Your task to perform on an android device: set default search engine in the chrome app Image 0: 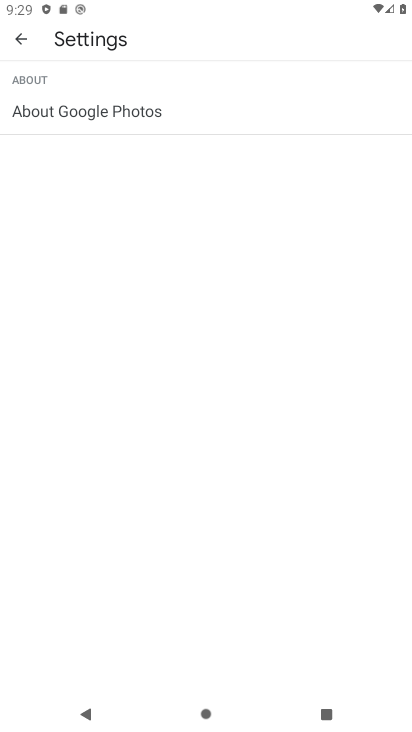
Step 0: drag from (307, 666) to (228, 80)
Your task to perform on an android device: set default search engine in the chrome app Image 1: 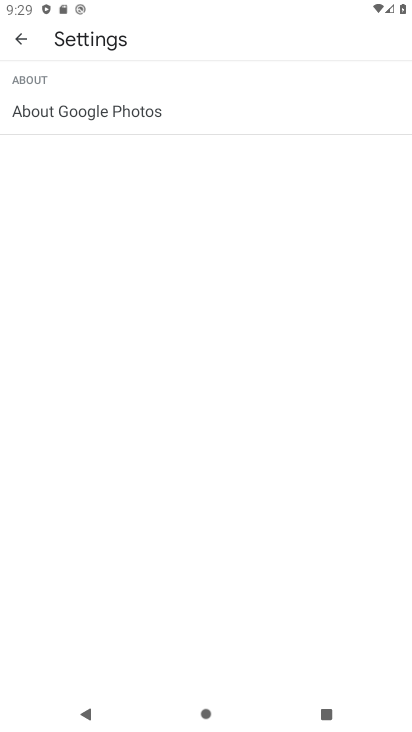
Step 1: click (26, 46)
Your task to perform on an android device: set default search engine in the chrome app Image 2: 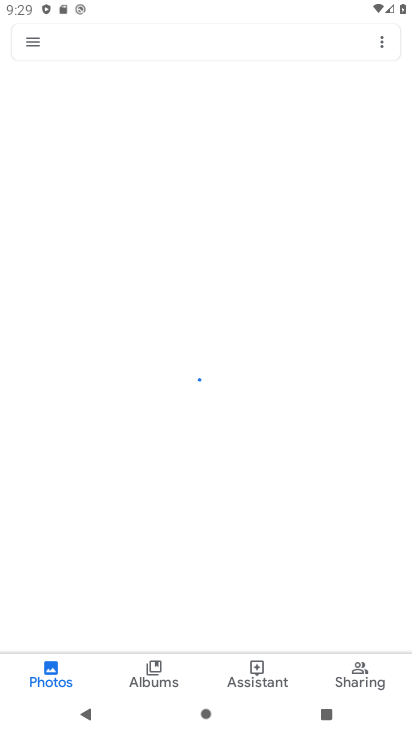
Step 2: press back button
Your task to perform on an android device: set default search engine in the chrome app Image 3: 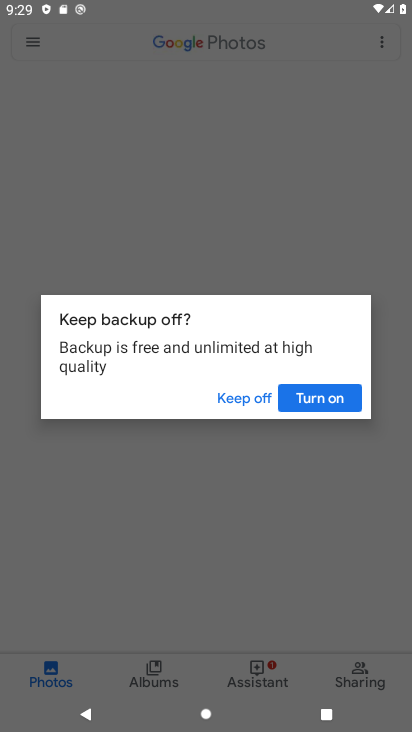
Step 3: click (249, 414)
Your task to perform on an android device: set default search engine in the chrome app Image 4: 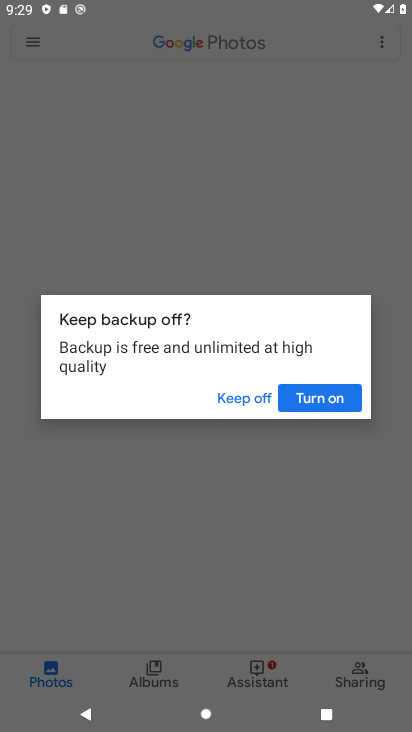
Step 4: click (174, 171)
Your task to perform on an android device: set default search engine in the chrome app Image 5: 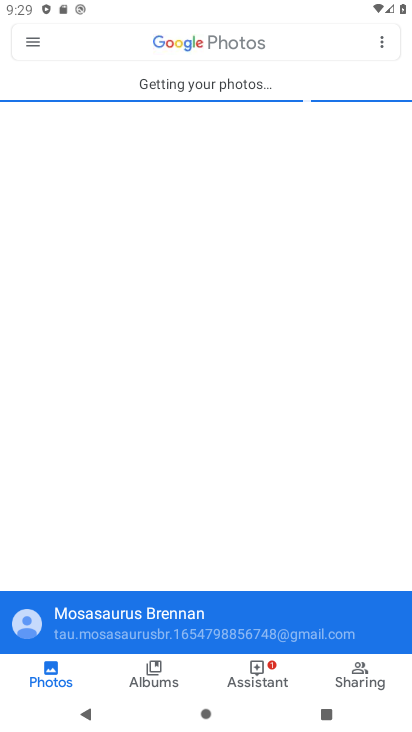
Step 5: press home button
Your task to perform on an android device: set default search engine in the chrome app Image 6: 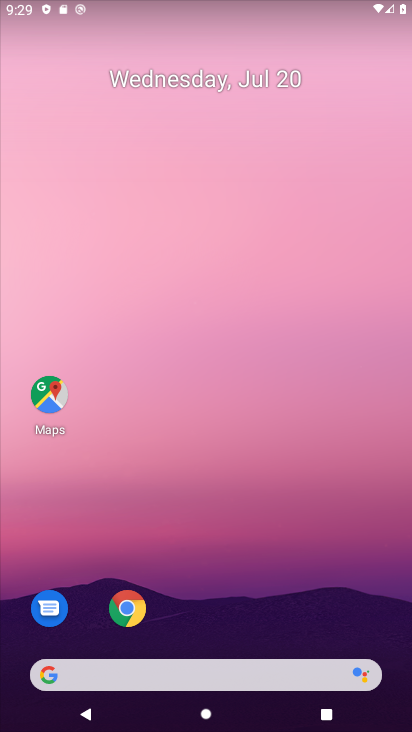
Step 6: drag from (205, 519) to (188, 76)
Your task to perform on an android device: set default search engine in the chrome app Image 7: 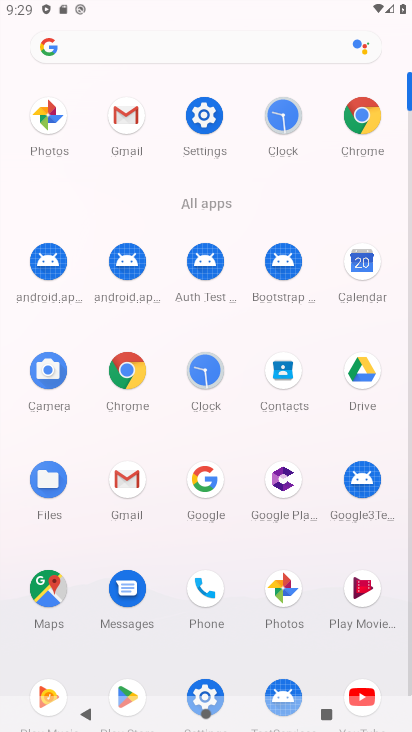
Step 7: click (358, 114)
Your task to perform on an android device: set default search engine in the chrome app Image 8: 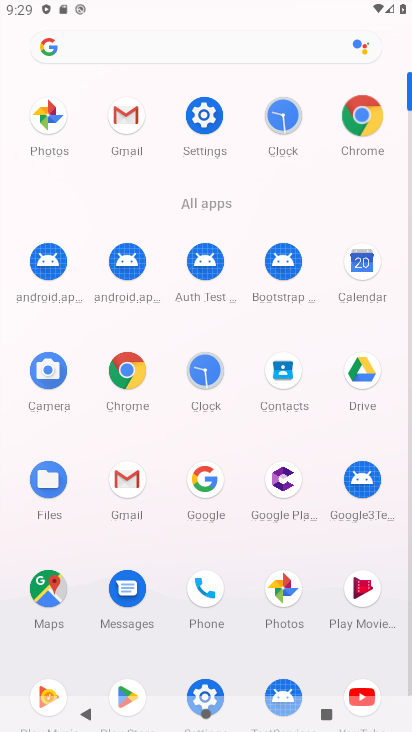
Step 8: click (362, 116)
Your task to perform on an android device: set default search engine in the chrome app Image 9: 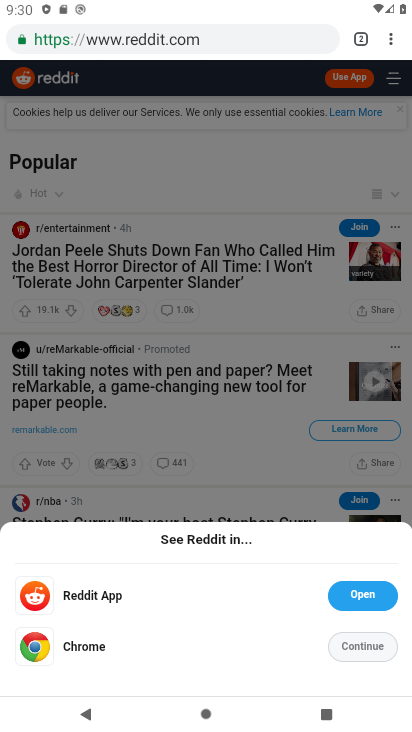
Step 9: drag from (392, 39) to (251, 470)
Your task to perform on an android device: set default search engine in the chrome app Image 10: 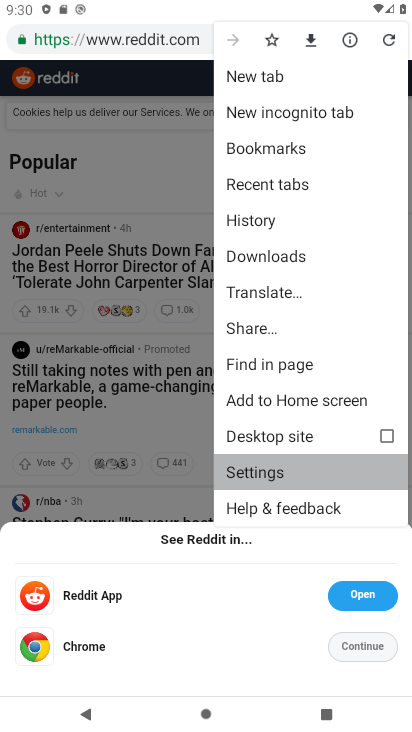
Step 10: click (251, 470)
Your task to perform on an android device: set default search engine in the chrome app Image 11: 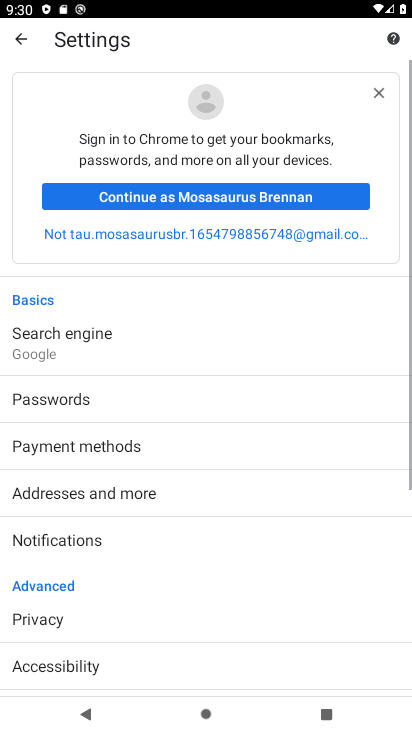
Step 11: click (49, 337)
Your task to perform on an android device: set default search engine in the chrome app Image 12: 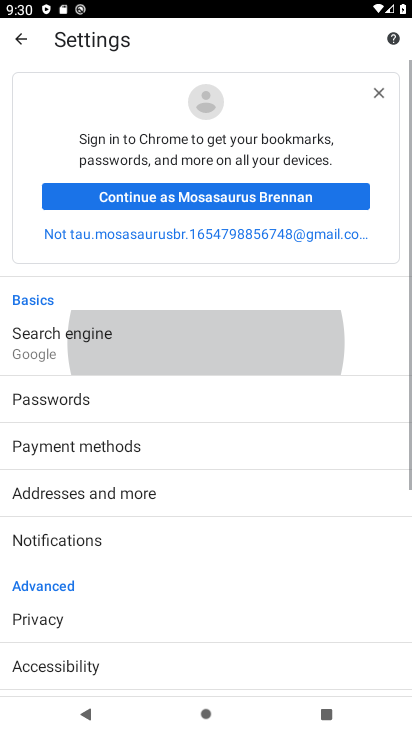
Step 12: click (49, 337)
Your task to perform on an android device: set default search engine in the chrome app Image 13: 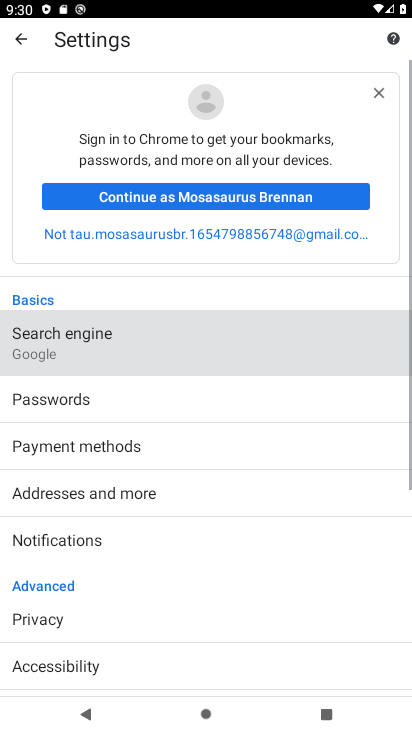
Step 13: click (49, 338)
Your task to perform on an android device: set default search engine in the chrome app Image 14: 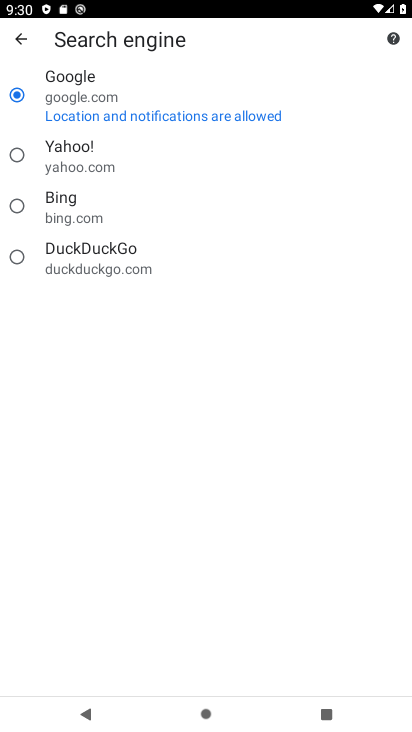
Step 14: click (5, 159)
Your task to perform on an android device: set default search engine in the chrome app Image 15: 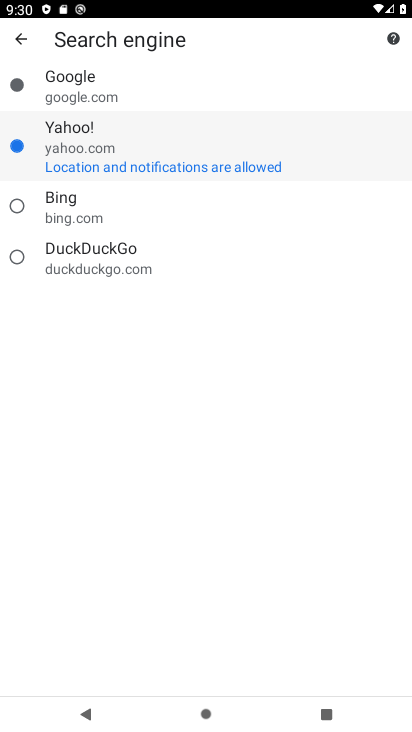
Step 15: click (19, 160)
Your task to perform on an android device: set default search engine in the chrome app Image 16: 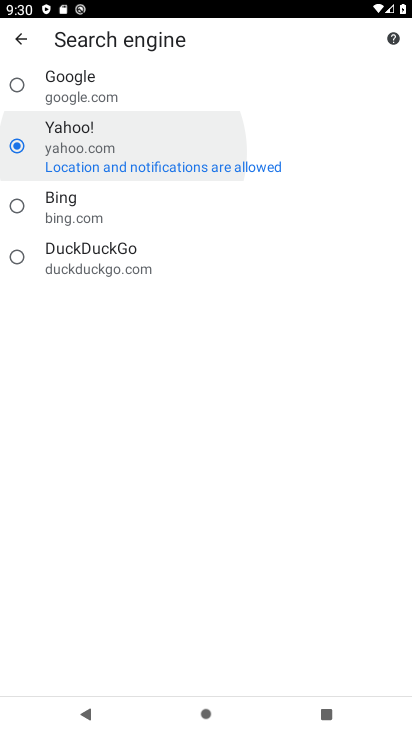
Step 16: click (20, 159)
Your task to perform on an android device: set default search engine in the chrome app Image 17: 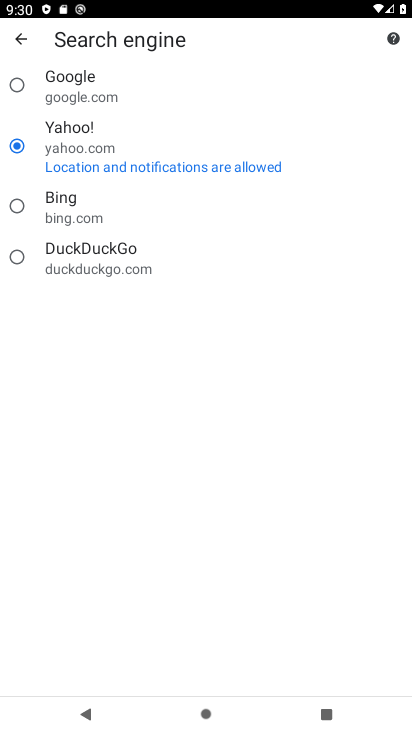
Step 17: task complete